Your task to perform on an android device: Go to display settings Image 0: 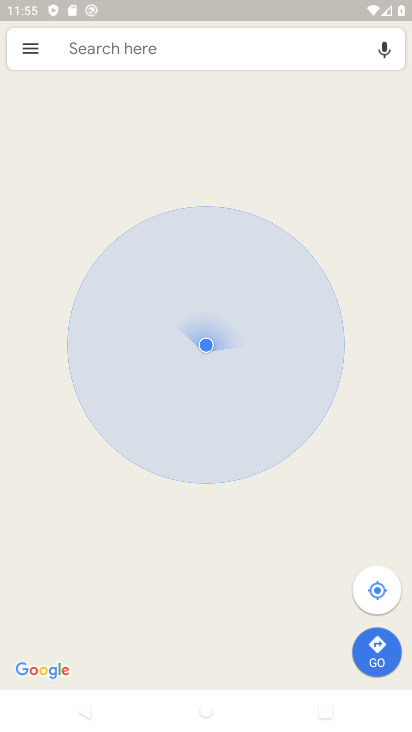
Step 0: press home button
Your task to perform on an android device: Go to display settings Image 1: 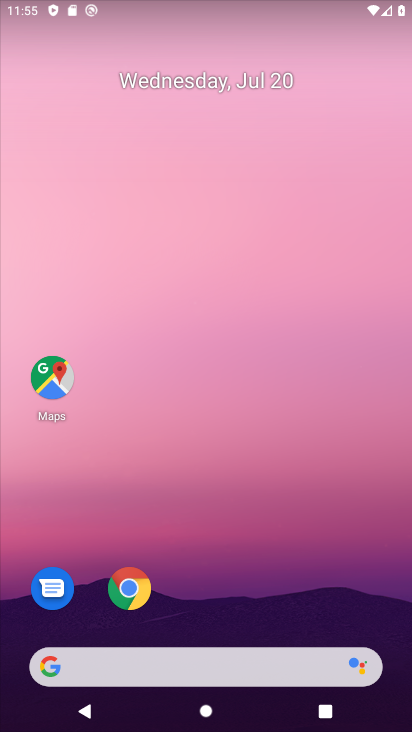
Step 1: drag from (279, 609) to (250, 81)
Your task to perform on an android device: Go to display settings Image 2: 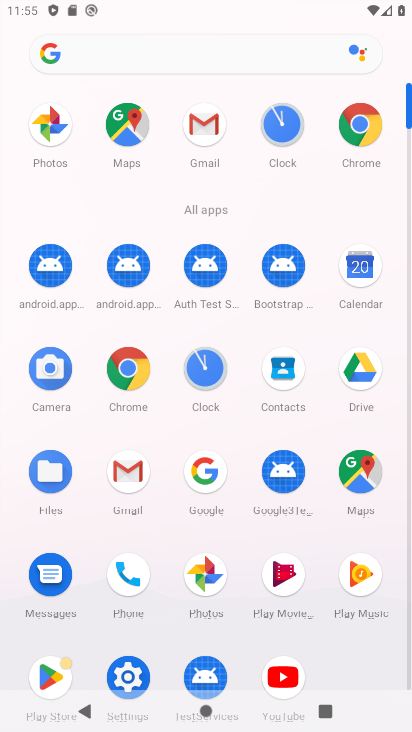
Step 2: click (131, 685)
Your task to perform on an android device: Go to display settings Image 3: 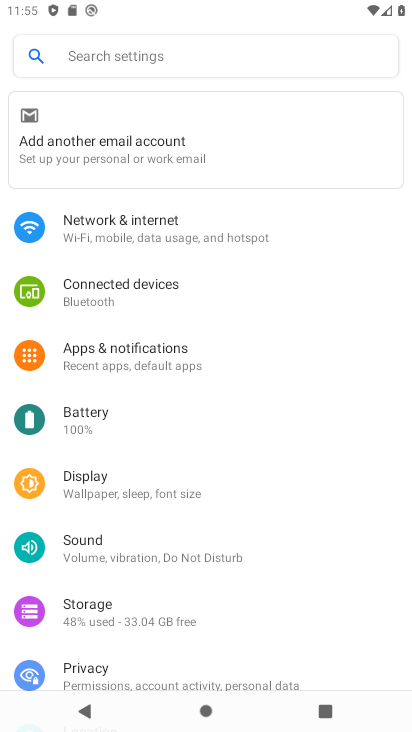
Step 3: click (78, 472)
Your task to perform on an android device: Go to display settings Image 4: 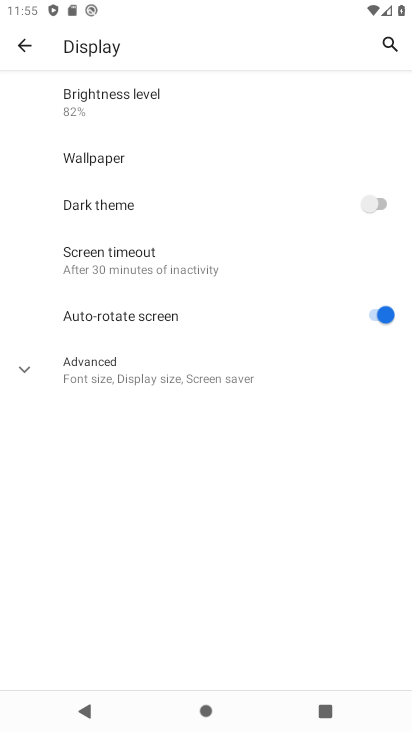
Step 4: task complete